Your task to perform on an android device: see sites visited before in the chrome app Image 0: 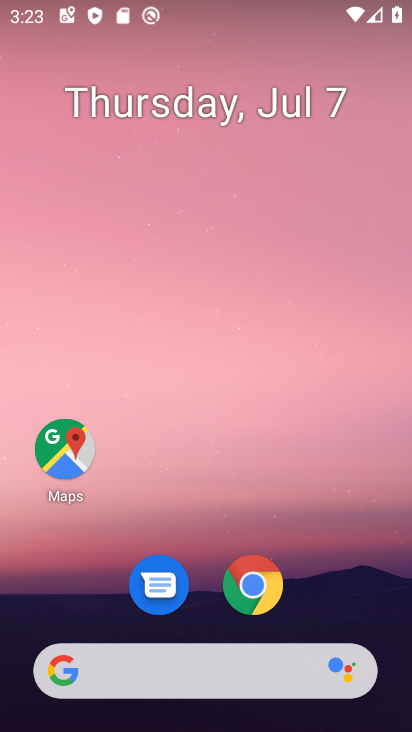
Step 0: click (263, 585)
Your task to perform on an android device: see sites visited before in the chrome app Image 1: 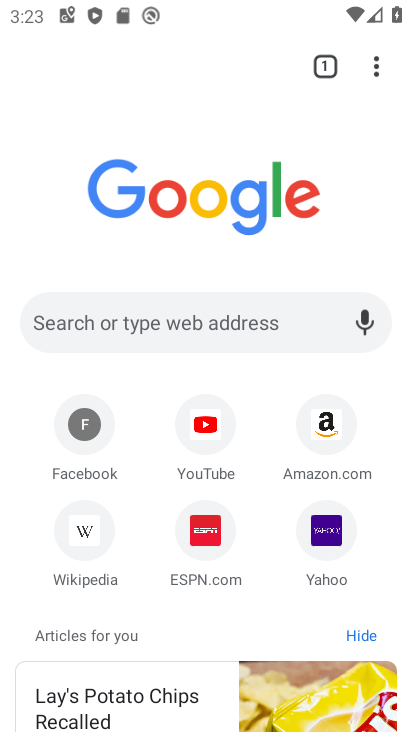
Step 1: click (375, 72)
Your task to perform on an android device: see sites visited before in the chrome app Image 2: 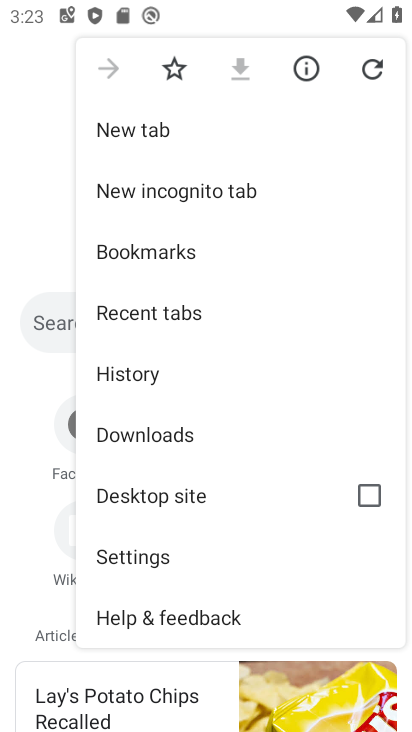
Step 2: click (181, 312)
Your task to perform on an android device: see sites visited before in the chrome app Image 3: 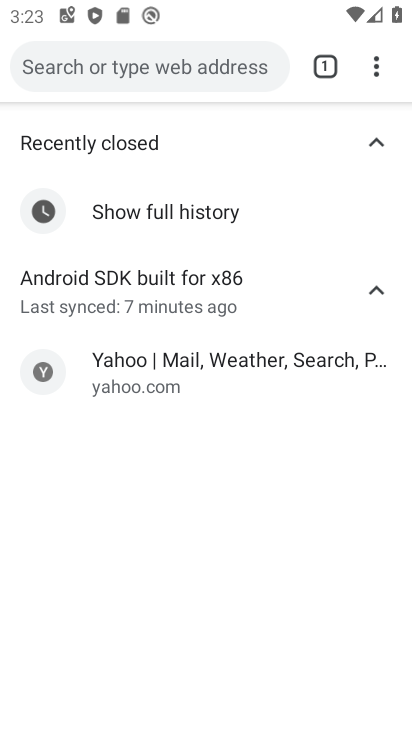
Step 3: task complete